Your task to perform on an android device: visit the assistant section in the google photos Image 0: 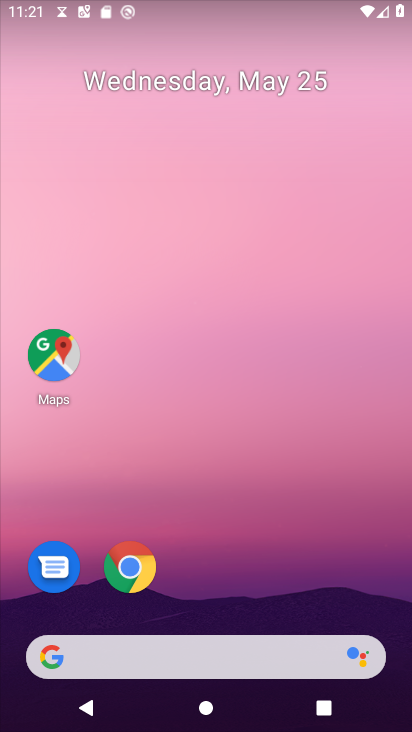
Step 0: drag from (287, 581) to (290, 59)
Your task to perform on an android device: visit the assistant section in the google photos Image 1: 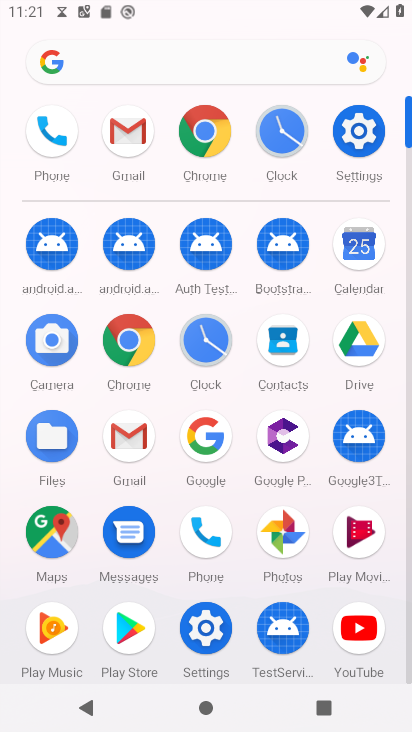
Step 1: click (287, 533)
Your task to perform on an android device: visit the assistant section in the google photos Image 2: 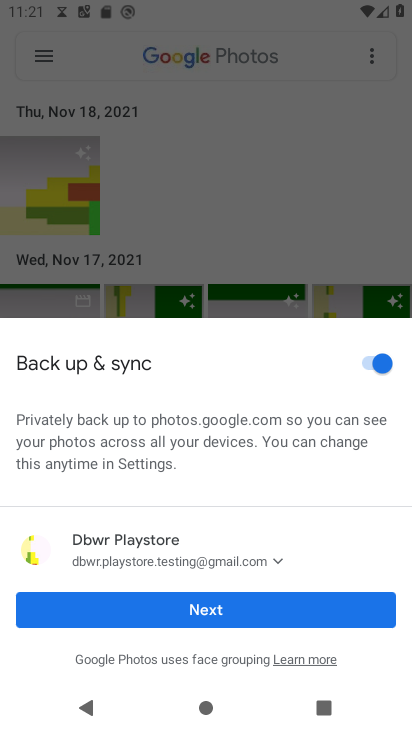
Step 2: click (304, 611)
Your task to perform on an android device: visit the assistant section in the google photos Image 3: 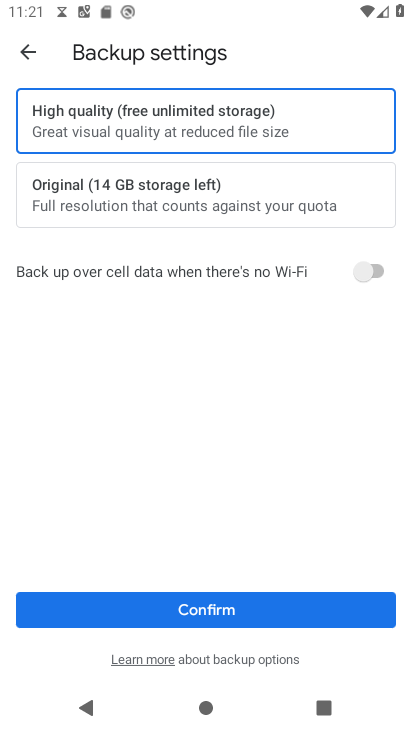
Step 3: click (306, 623)
Your task to perform on an android device: visit the assistant section in the google photos Image 4: 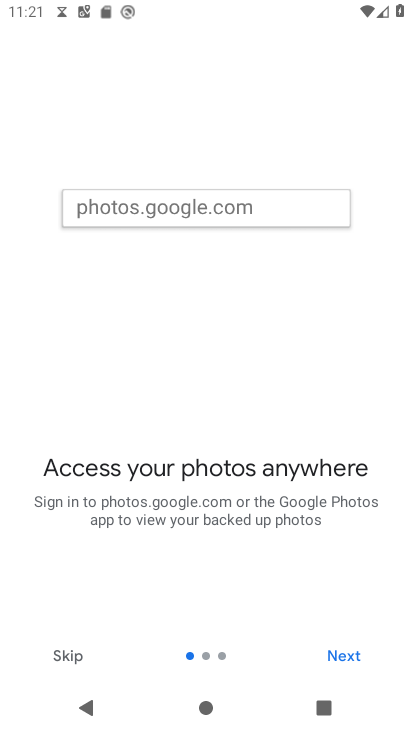
Step 4: click (347, 651)
Your task to perform on an android device: visit the assistant section in the google photos Image 5: 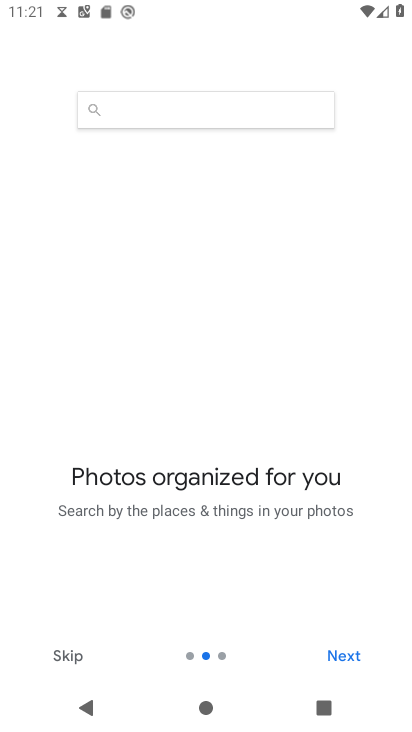
Step 5: click (347, 651)
Your task to perform on an android device: visit the assistant section in the google photos Image 6: 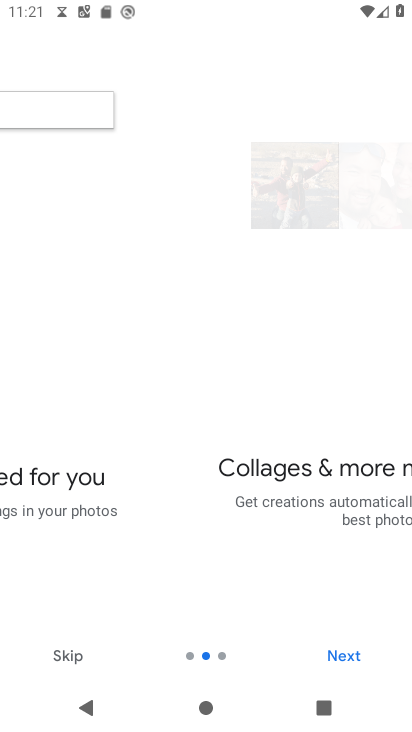
Step 6: click (347, 651)
Your task to perform on an android device: visit the assistant section in the google photos Image 7: 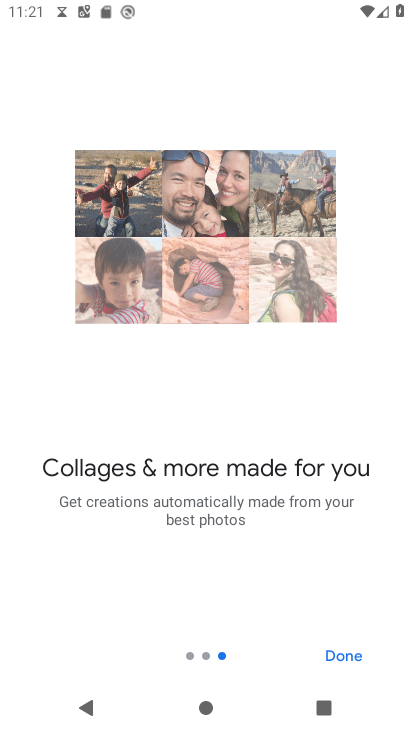
Step 7: click (347, 651)
Your task to perform on an android device: visit the assistant section in the google photos Image 8: 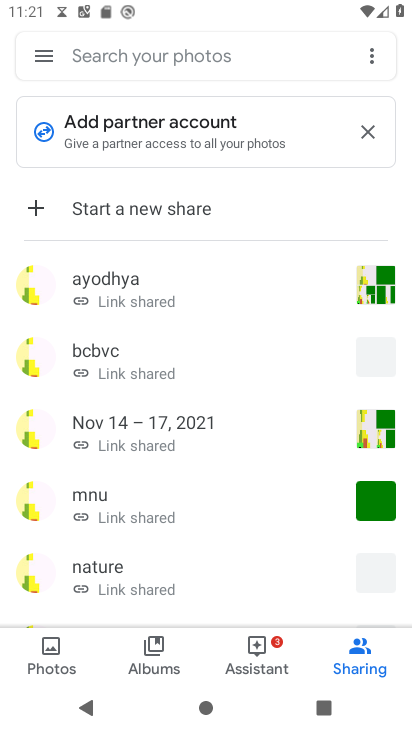
Step 8: click (271, 664)
Your task to perform on an android device: visit the assistant section in the google photos Image 9: 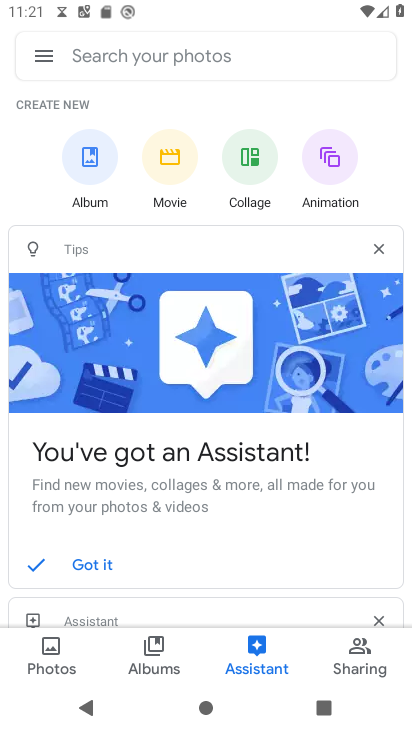
Step 9: task complete